Your task to perform on an android device: Open Amazon Image 0: 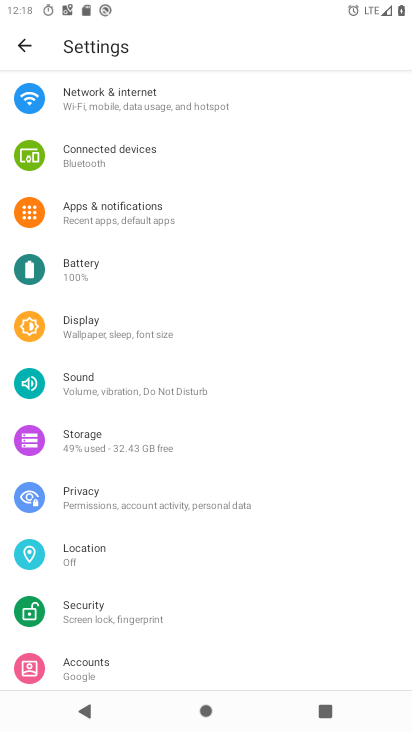
Step 0: press home button
Your task to perform on an android device: Open Amazon Image 1: 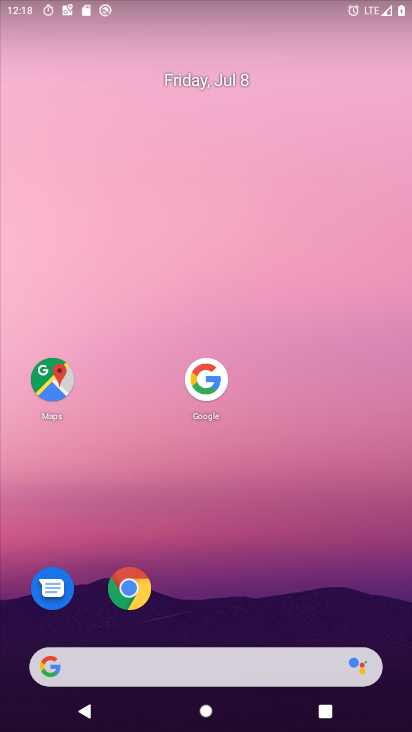
Step 1: click (132, 592)
Your task to perform on an android device: Open Amazon Image 2: 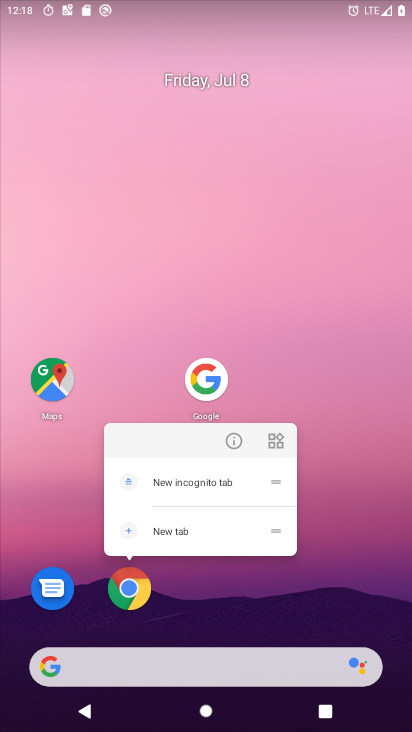
Step 2: click (132, 593)
Your task to perform on an android device: Open Amazon Image 3: 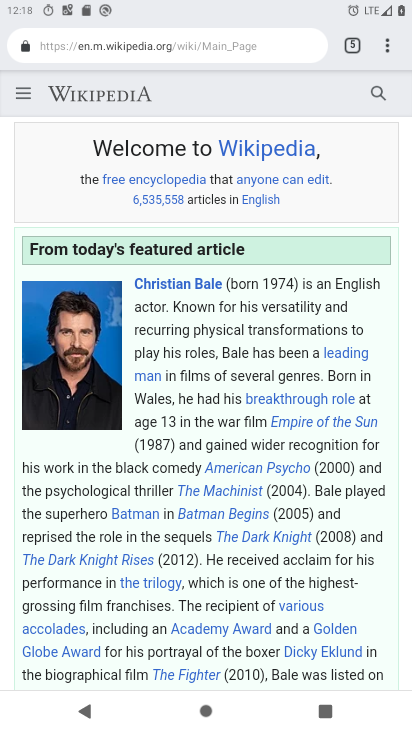
Step 3: drag from (388, 44) to (288, 88)
Your task to perform on an android device: Open Amazon Image 4: 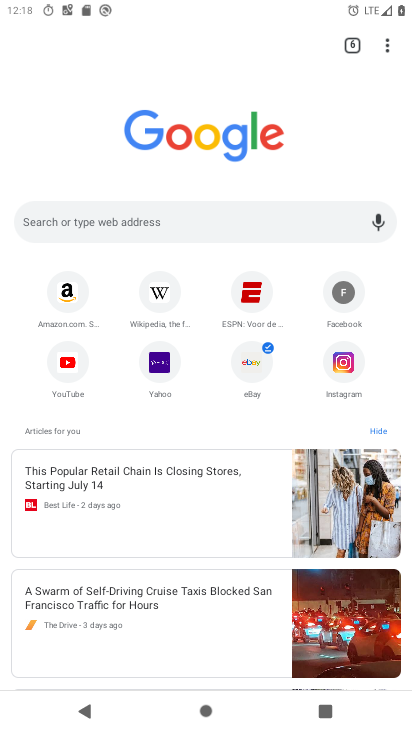
Step 4: click (63, 290)
Your task to perform on an android device: Open Amazon Image 5: 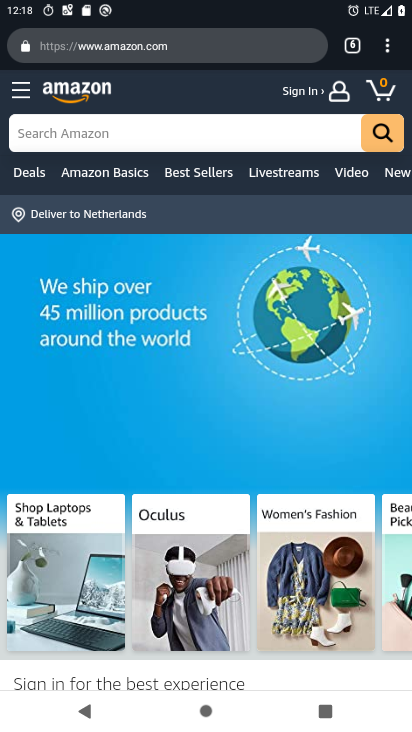
Step 5: task complete